Your task to perform on an android device: Go to wifi settings Image 0: 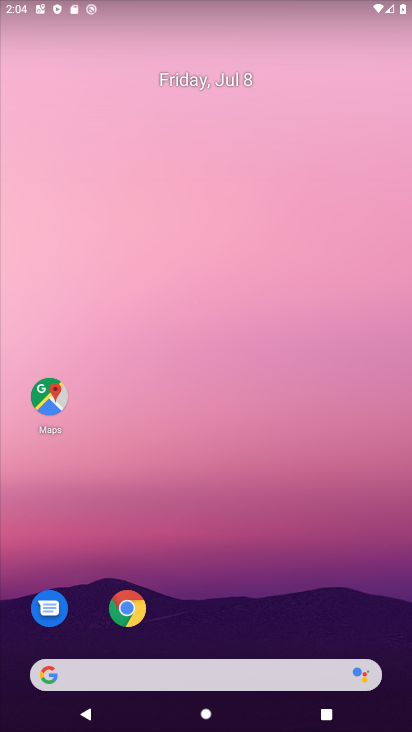
Step 0: drag from (337, 694) to (225, 10)
Your task to perform on an android device: Go to wifi settings Image 1: 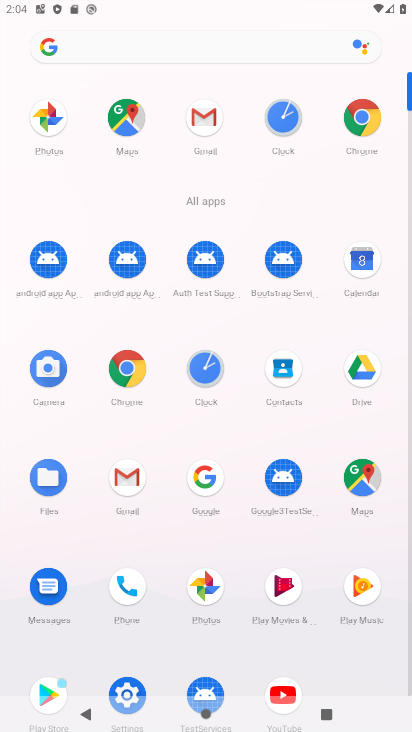
Step 1: click (128, 685)
Your task to perform on an android device: Go to wifi settings Image 2: 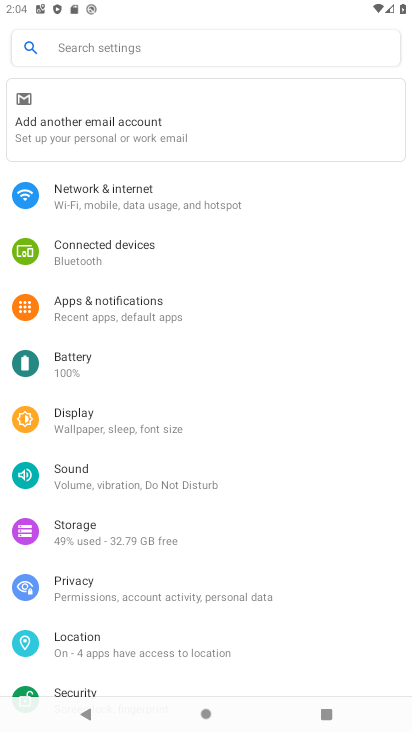
Step 2: click (94, 200)
Your task to perform on an android device: Go to wifi settings Image 3: 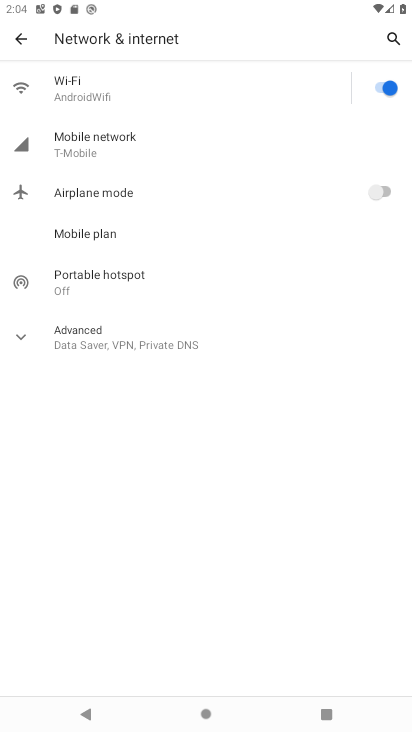
Step 3: click (128, 84)
Your task to perform on an android device: Go to wifi settings Image 4: 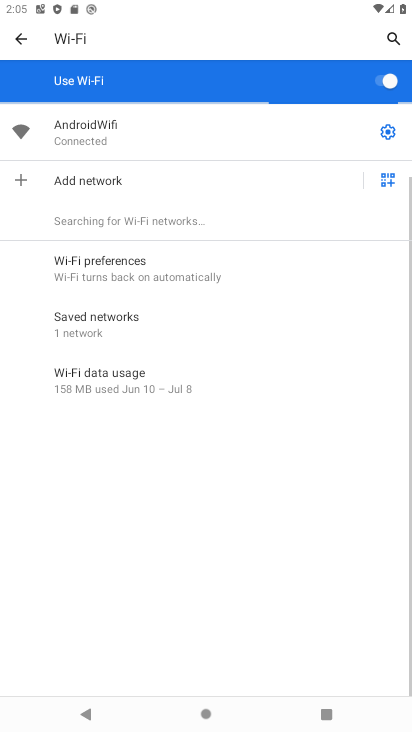
Step 4: task complete